Your task to perform on an android device: Open notification settings Image 0: 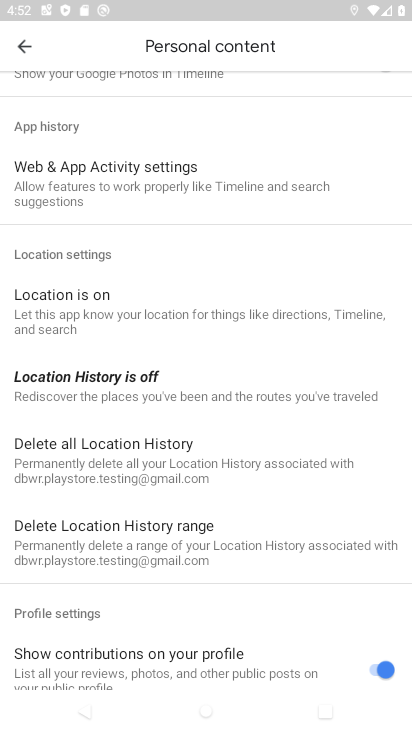
Step 0: press back button
Your task to perform on an android device: Open notification settings Image 1: 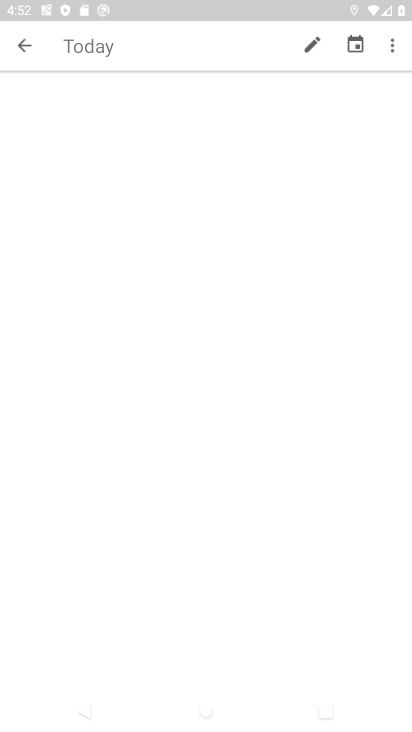
Step 1: press back button
Your task to perform on an android device: Open notification settings Image 2: 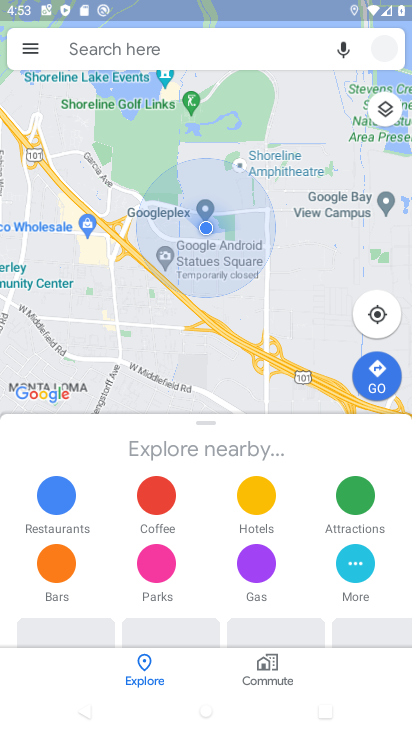
Step 2: press home button
Your task to perform on an android device: Open notification settings Image 3: 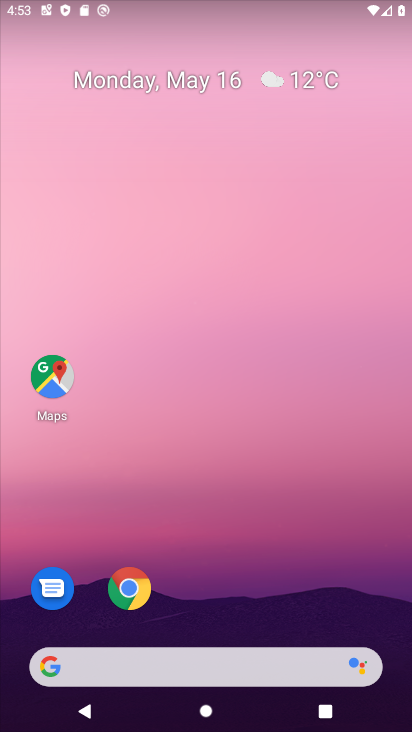
Step 3: drag from (203, 600) to (304, 39)
Your task to perform on an android device: Open notification settings Image 4: 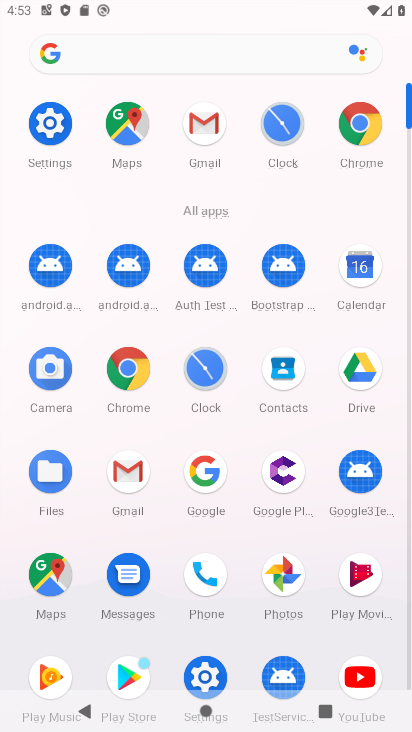
Step 4: click (51, 129)
Your task to perform on an android device: Open notification settings Image 5: 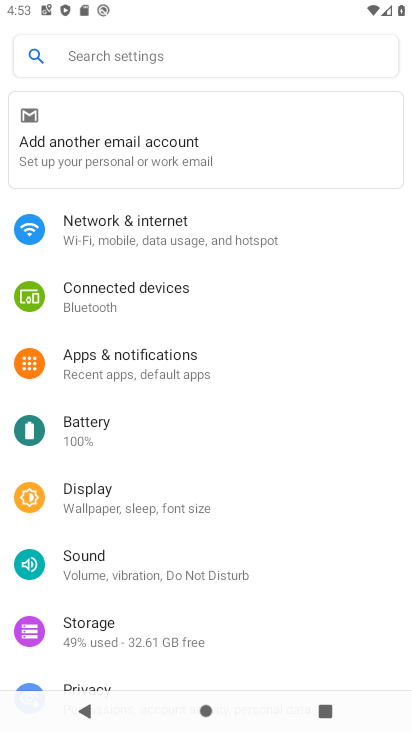
Step 5: click (178, 376)
Your task to perform on an android device: Open notification settings Image 6: 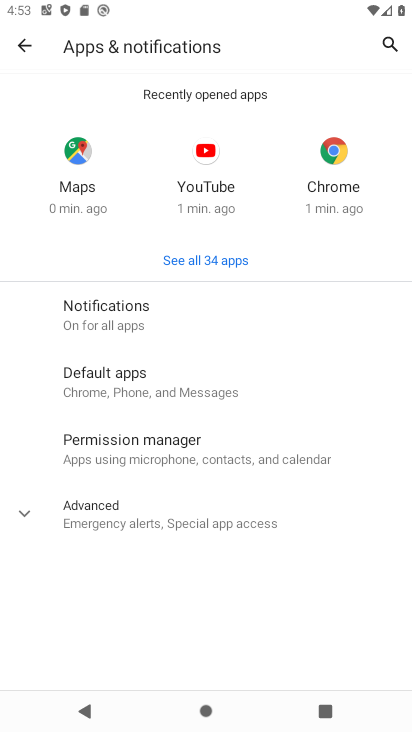
Step 6: task complete